Your task to perform on an android device: turn notification dots off Image 0: 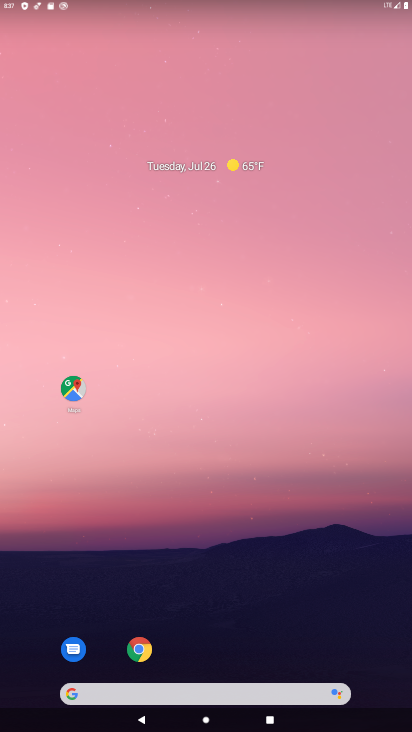
Step 0: press home button
Your task to perform on an android device: turn notification dots off Image 1: 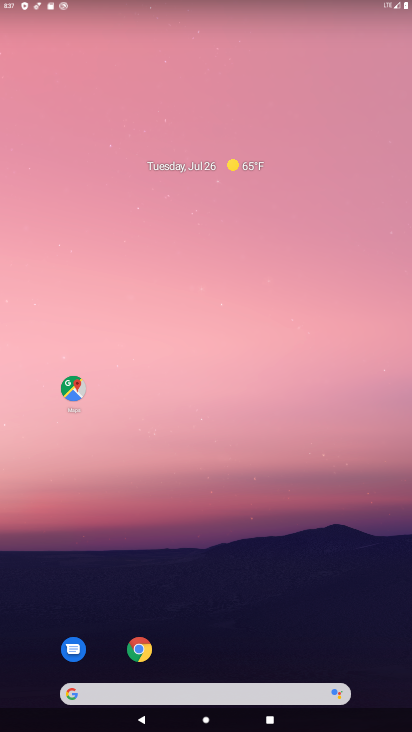
Step 1: drag from (172, 692) to (284, 56)
Your task to perform on an android device: turn notification dots off Image 2: 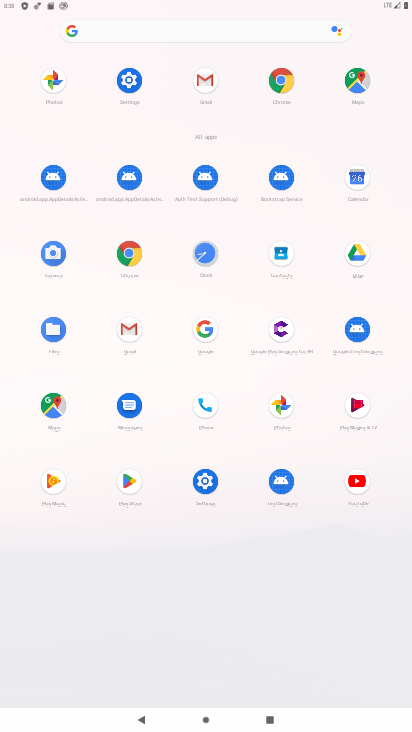
Step 2: click (129, 81)
Your task to perform on an android device: turn notification dots off Image 3: 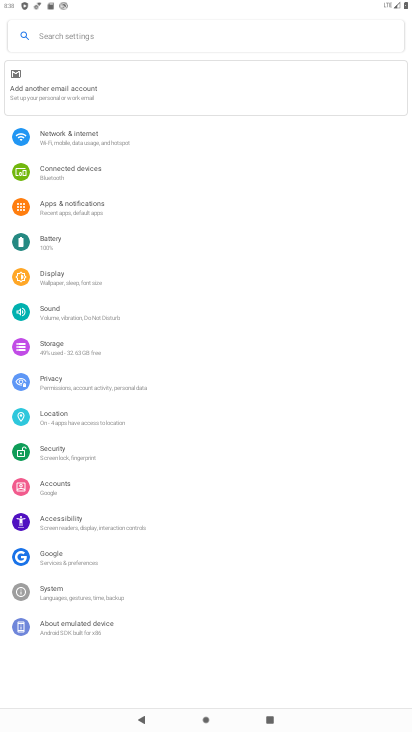
Step 3: click (67, 206)
Your task to perform on an android device: turn notification dots off Image 4: 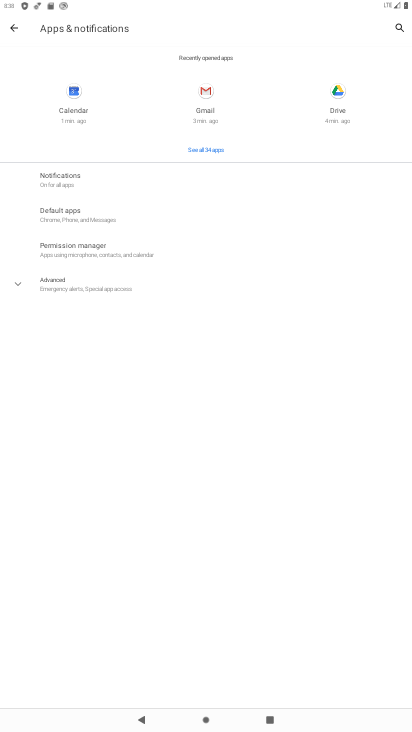
Step 4: click (70, 174)
Your task to perform on an android device: turn notification dots off Image 5: 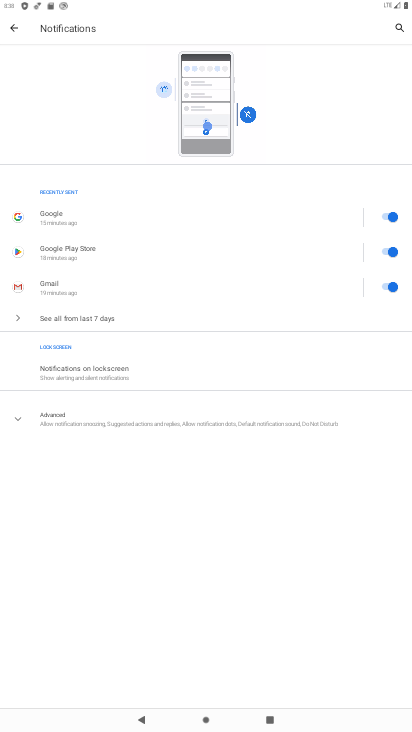
Step 5: click (137, 423)
Your task to perform on an android device: turn notification dots off Image 6: 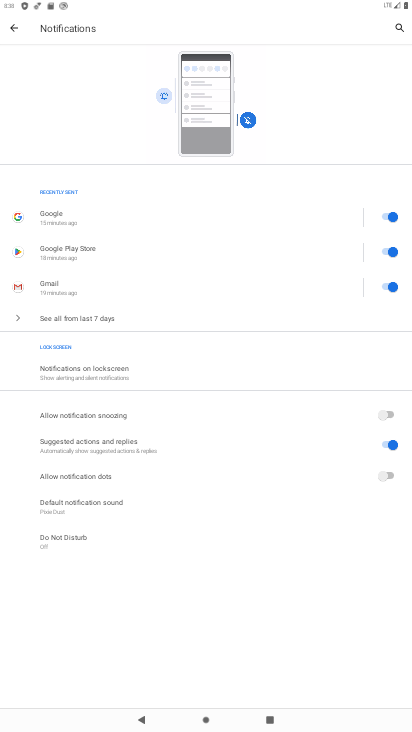
Step 6: task complete